Your task to perform on an android device: Open calendar and show me the third week of next month Image 0: 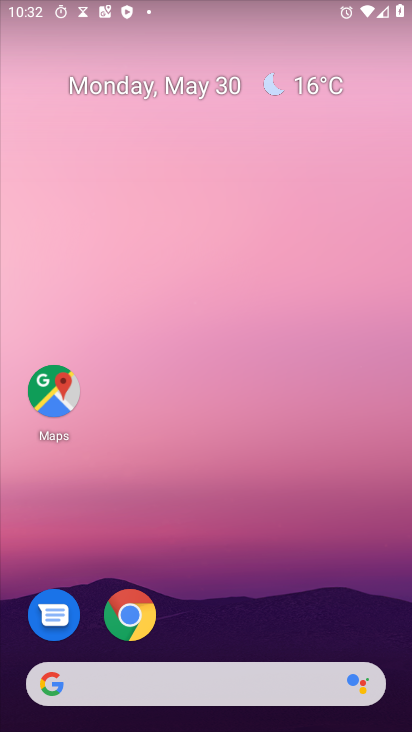
Step 0: drag from (251, 553) to (153, 148)
Your task to perform on an android device: Open calendar and show me the third week of next month Image 1: 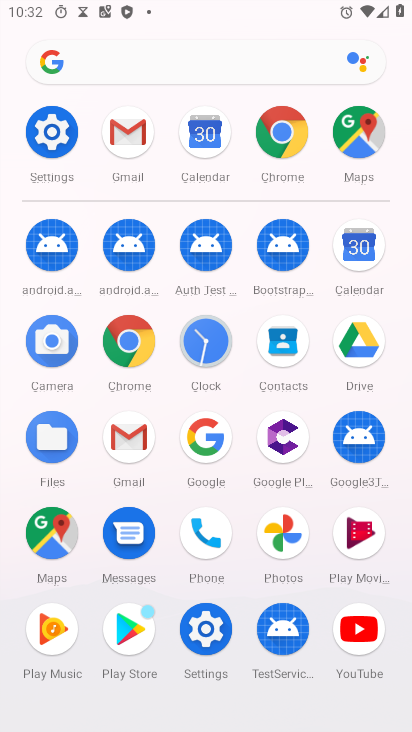
Step 1: click (361, 263)
Your task to perform on an android device: Open calendar and show me the third week of next month Image 2: 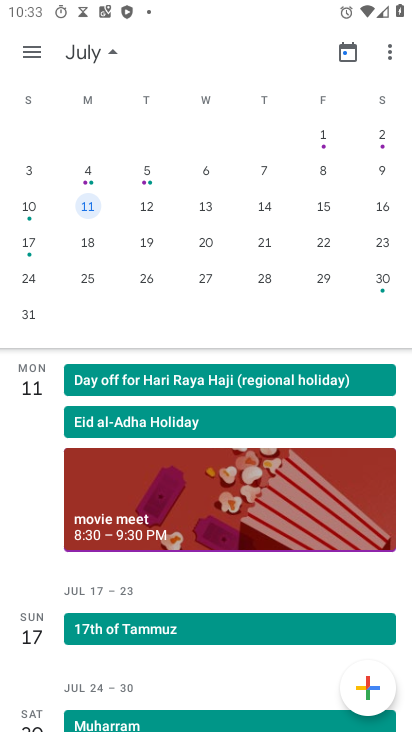
Step 2: drag from (321, 248) to (1, 257)
Your task to perform on an android device: Open calendar and show me the third week of next month Image 3: 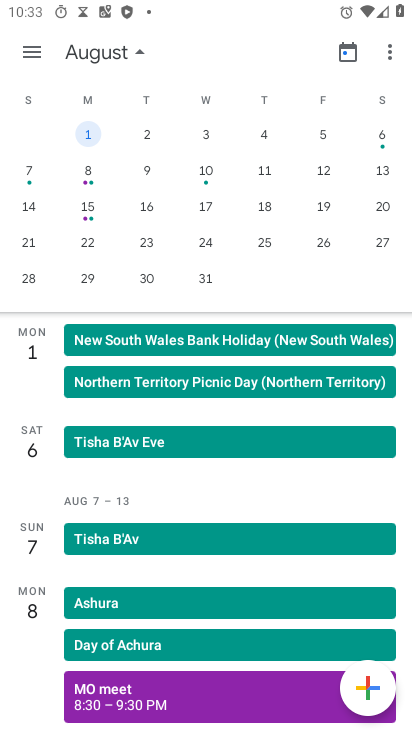
Step 3: click (25, 245)
Your task to perform on an android device: Open calendar and show me the third week of next month Image 4: 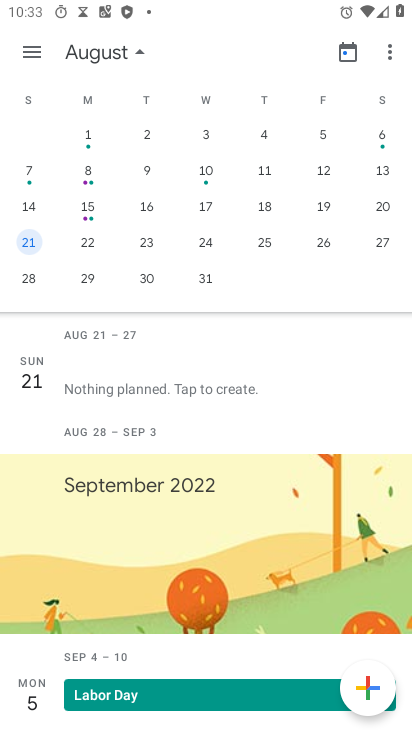
Step 4: task complete